Your task to perform on an android device: toggle sleep mode Image 0: 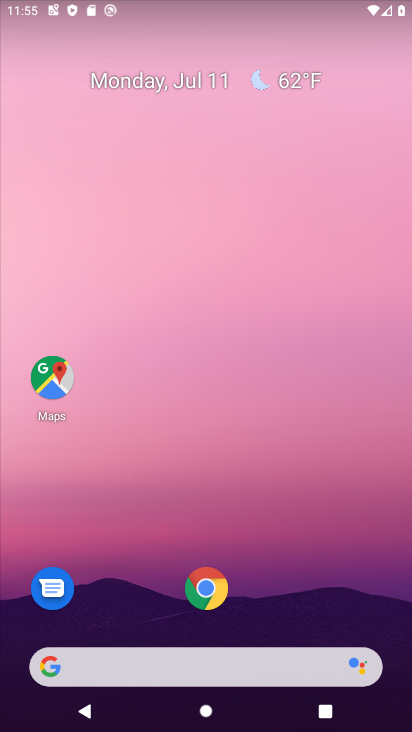
Step 0: drag from (239, 607) to (192, 179)
Your task to perform on an android device: toggle sleep mode Image 1: 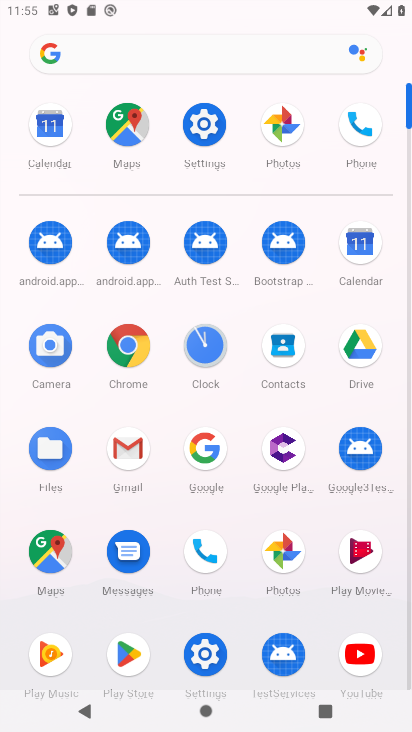
Step 1: click (205, 120)
Your task to perform on an android device: toggle sleep mode Image 2: 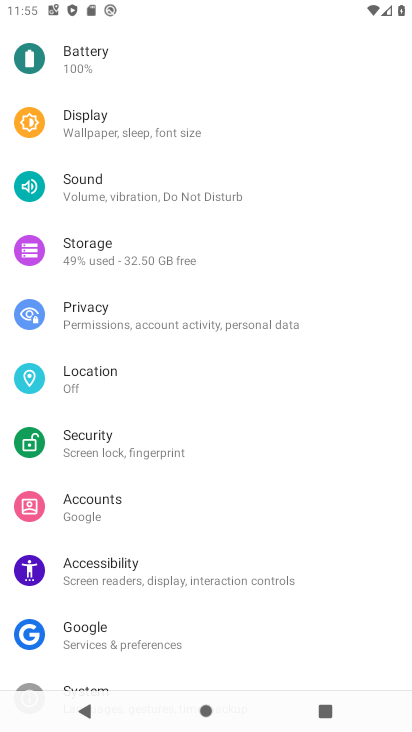
Step 2: task complete